Your task to perform on an android device: open sync settings in chrome Image 0: 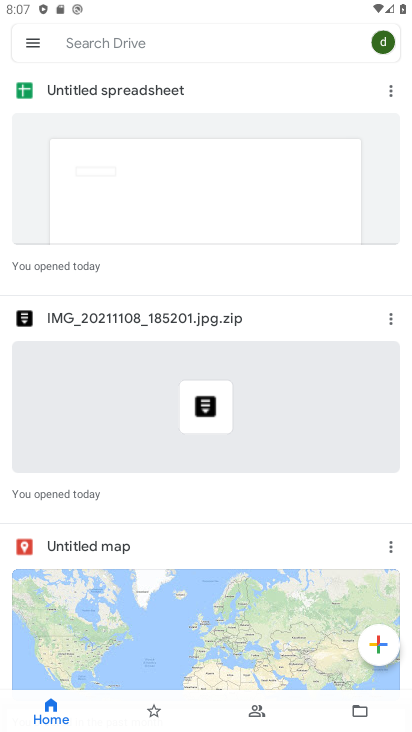
Step 0: press home button
Your task to perform on an android device: open sync settings in chrome Image 1: 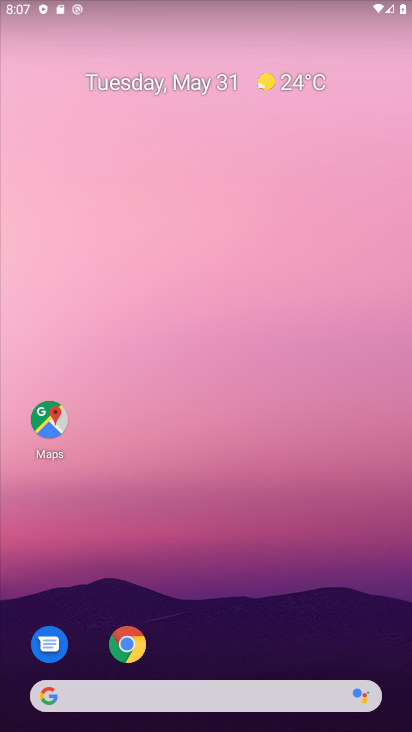
Step 1: drag from (277, 593) to (286, 114)
Your task to perform on an android device: open sync settings in chrome Image 2: 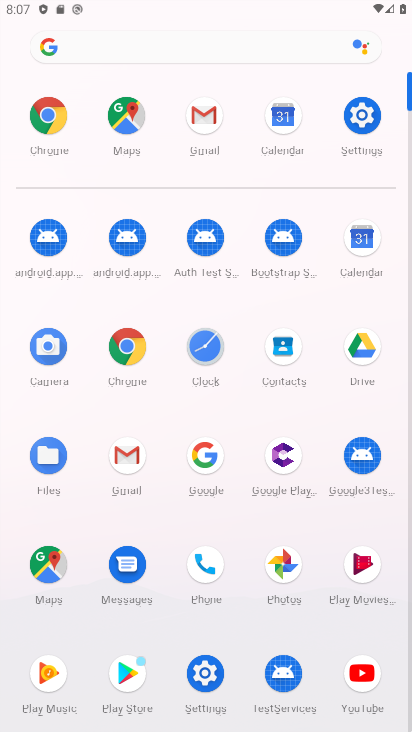
Step 2: click (128, 349)
Your task to perform on an android device: open sync settings in chrome Image 3: 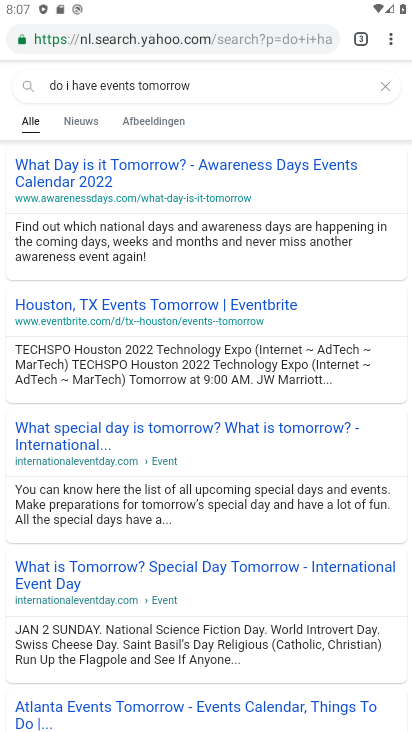
Step 3: drag from (397, 47) to (279, 427)
Your task to perform on an android device: open sync settings in chrome Image 4: 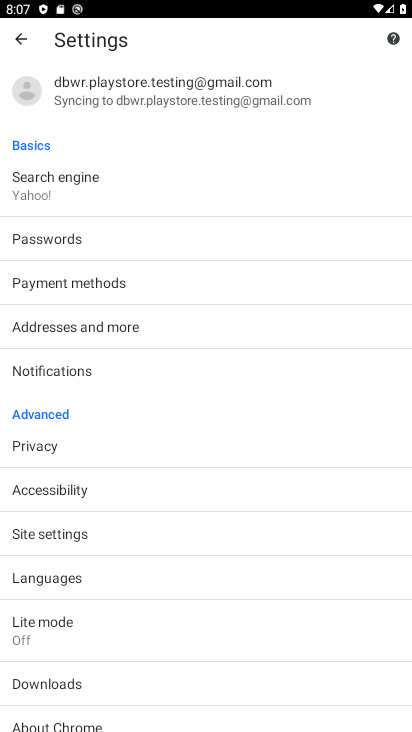
Step 4: drag from (119, 677) to (190, 263)
Your task to perform on an android device: open sync settings in chrome Image 5: 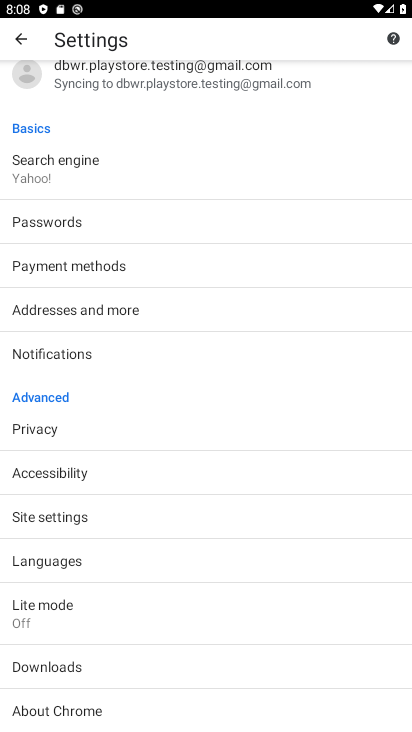
Step 5: click (109, 519)
Your task to perform on an android device: open sync settings in chrome Image 6: 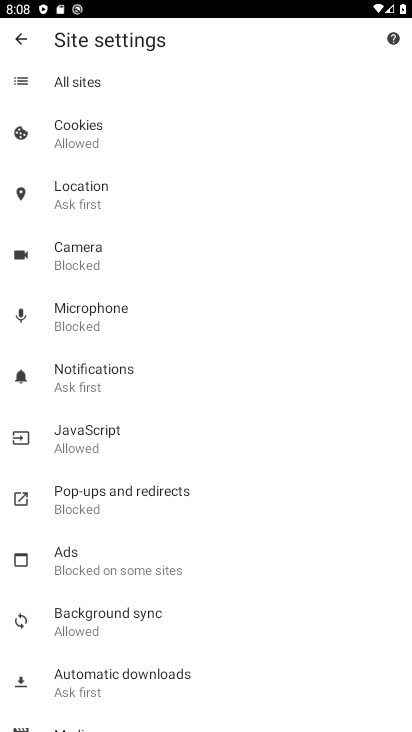
Step 6: drag from (202, 561) to (239, 161)
Your task to perform on an android device: open sync settings in chrome Image 7: 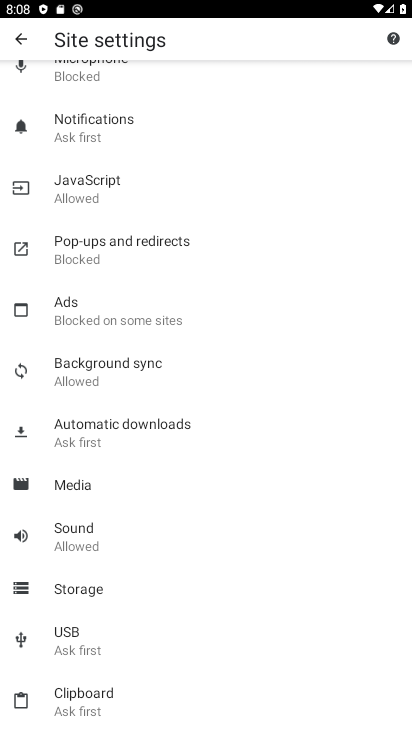
Step 7: click (167, 374)
Your task to perform on an android device: open sync settings in chrome Image 8: 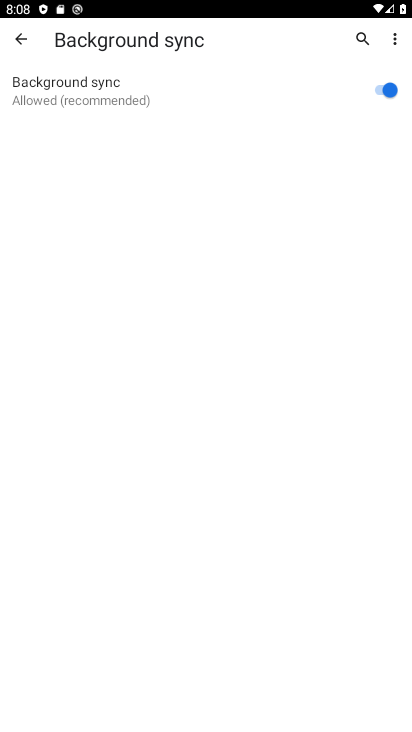
Step 8: task complete